Your task to perform on an android device: Open the Play Movies app and select the watchlist tab. Image 0: 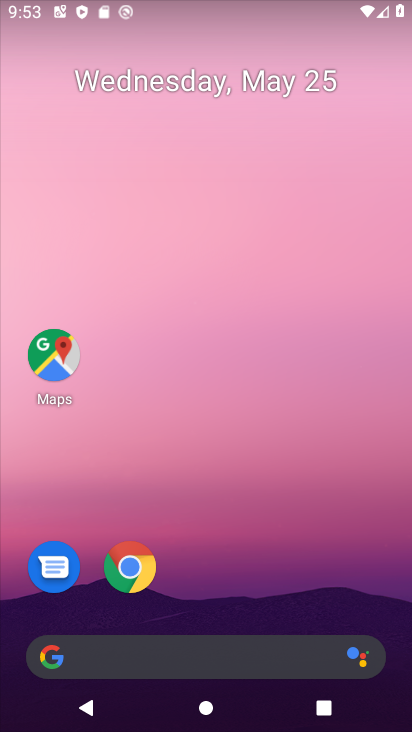
Step 0: drag from (322, 583) to (309, 84)
Your task to perform on an android device: Open the Play Movies app and select the watchlist tab. Image 1: 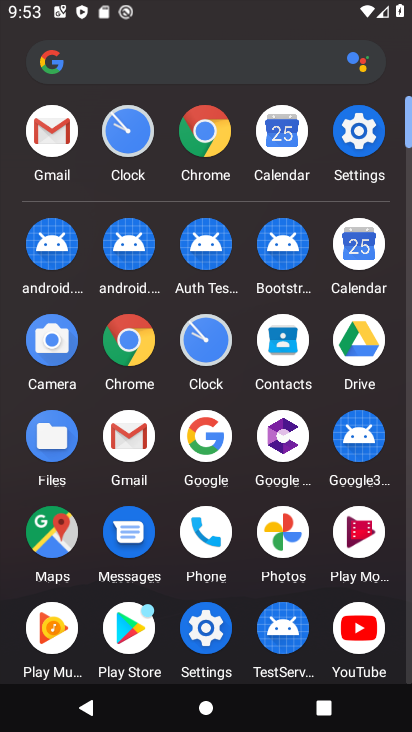
Step 1: click (360, 541)
Your task to perform on an android device: Open the Play Movies app and select the watchlist tab. Image 2: 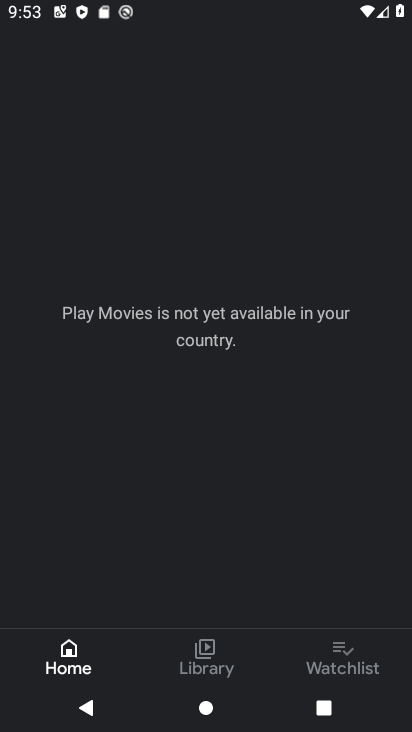
Step 2: click (369, 635)
Your task to perform on an android device: Open the Play Movies app and select the watchlist tab. Image 3: 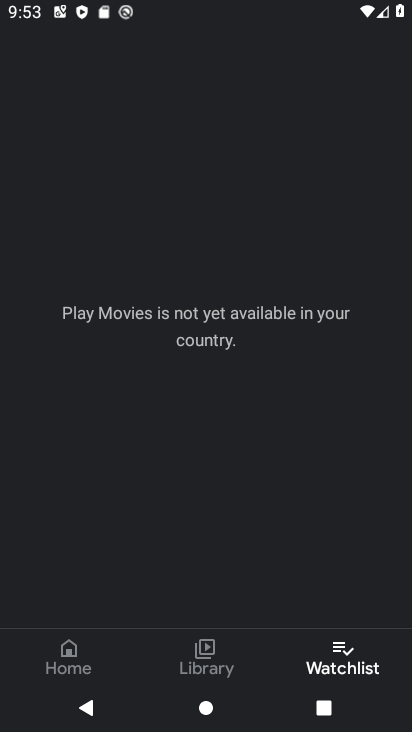
Step 3: task complete